Your task to perform on an android device: empty trash in google photos Image 0: 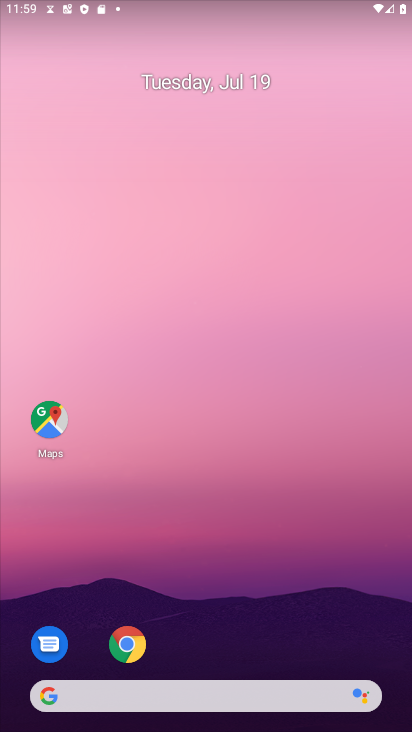
Step 0: press home button
Your task to perform on an android device: empty trash in google photos Image 1: 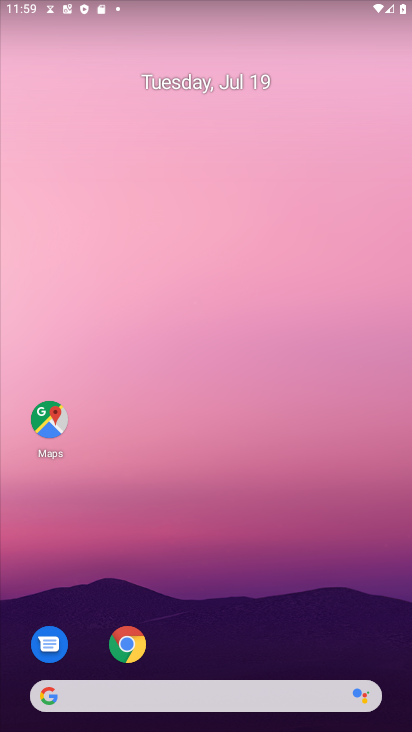
Step 1: drag from (212, 667) to (217, 181)
Your task to perform on an android device: empty trash in google photos Image 2: 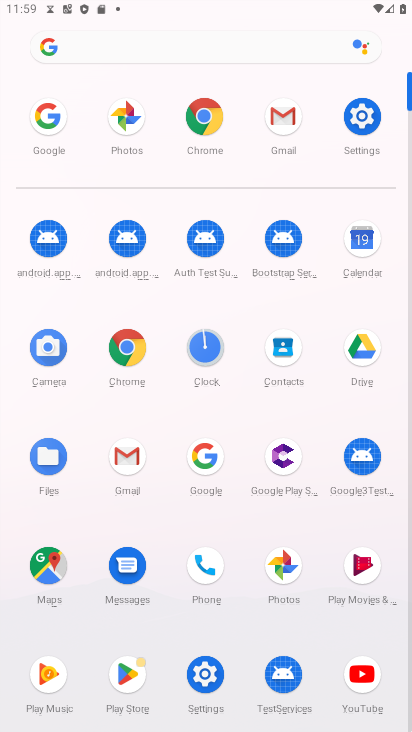
Step 2: click (126, 464)
Your task to perform on an android device: empty trash in google photos Image 3: 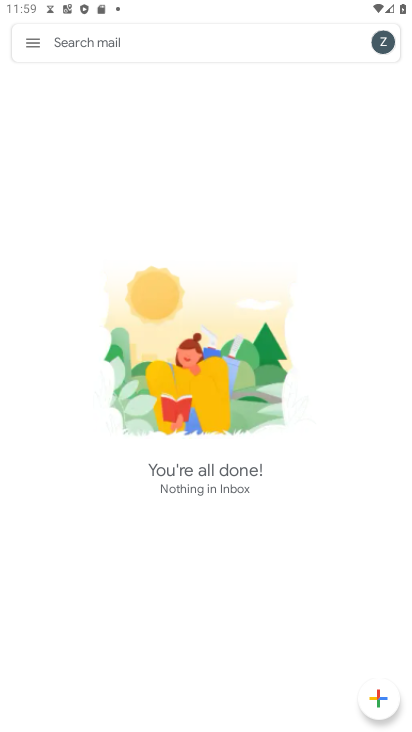
Step 3: click (37, 52)
Your task to perform on an android device: empty trash in google photos Image 4: 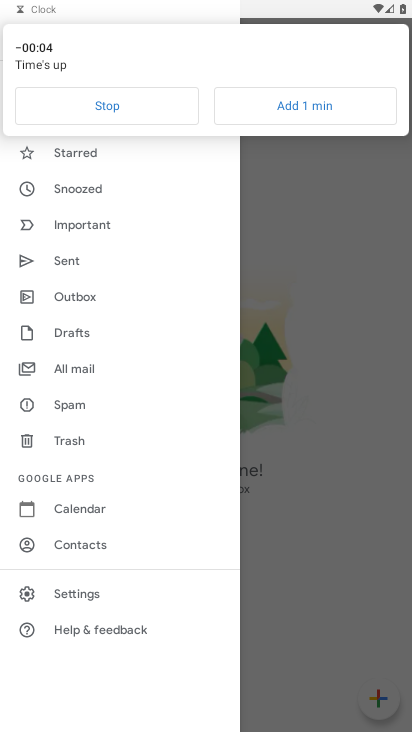
Step 4: click (60, 435)
Your task to perform on an android device: empty trash in google photos Image 5: 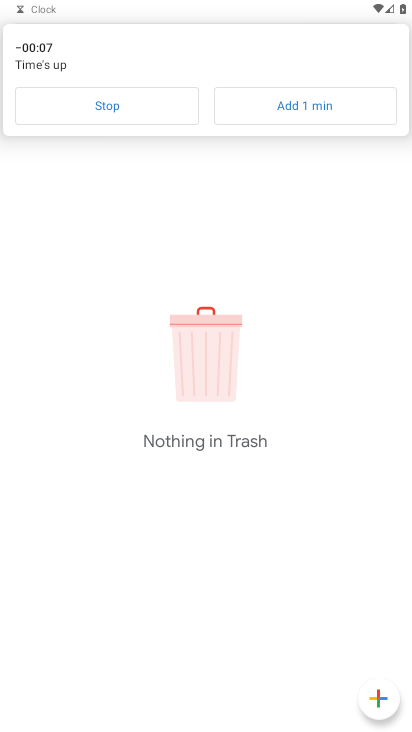
Step 5: click (58, 101)
Your task to perform on an android device: empty trash in google photos Image 6: 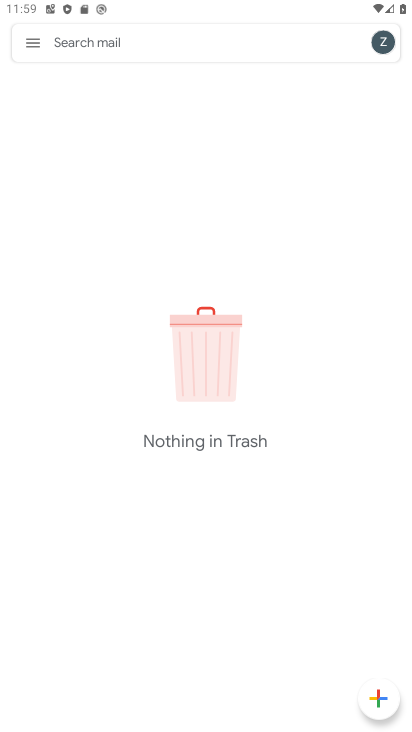
Step 6: task complete